Your task to perform on an android device: change text size in settings app Image 0: 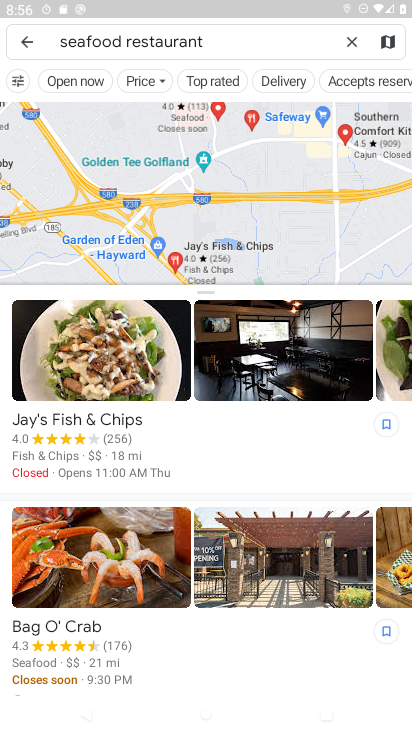
Step 0: click (31, 38)
Your task to perform on an android device: change text size in settings app Image 1: 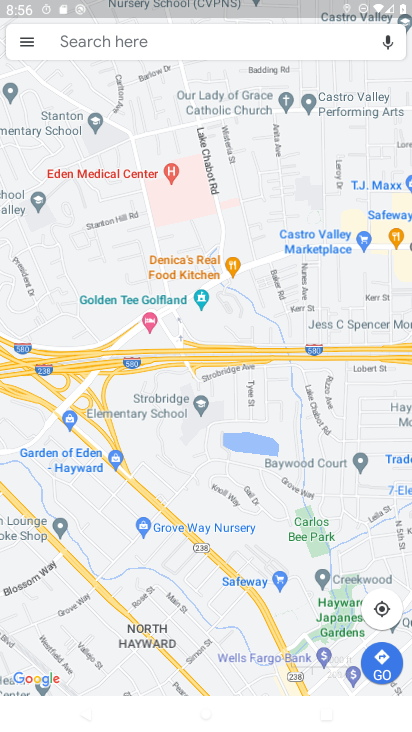
Step 1: press home button
Your task to perform on an android device: change text size in settings app Image 2: 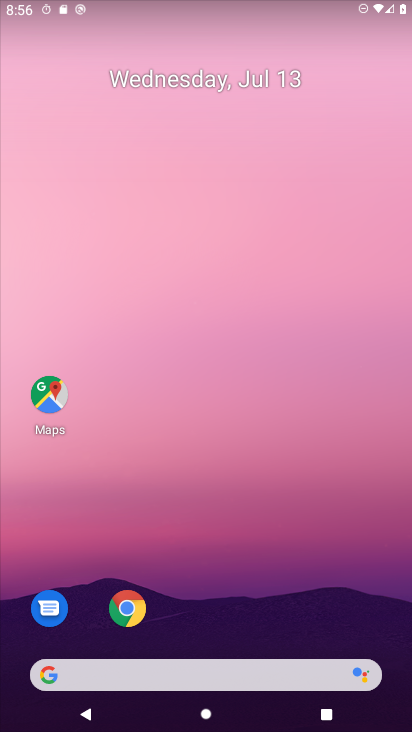
Step 2: press back button
Your task to perform on an android device: change text size in settings app Image 3: 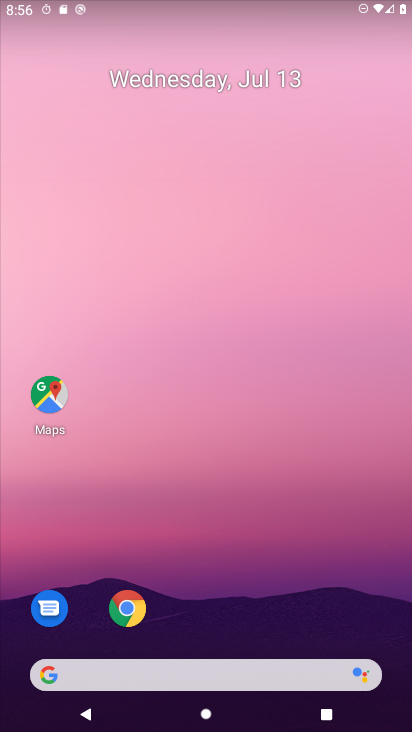
Step 3: drag from (199, 535) to (167, 378)
Your task to perform on an android device: change text size in settings app Image 4: 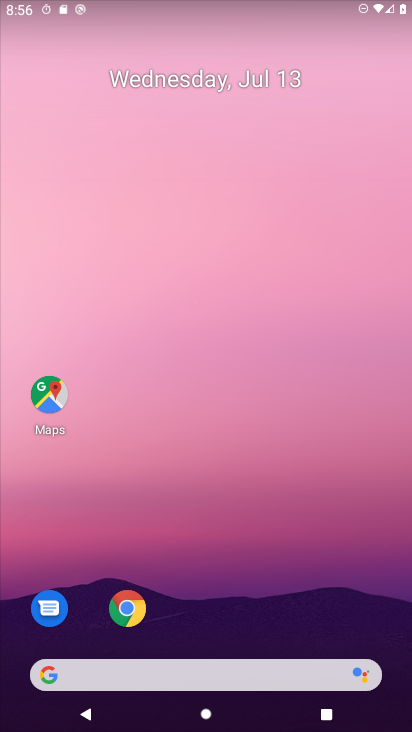
Step 4: drag from (247, 646) to (137, 217)
Your task to perform on an android device: change text size in settings app Image 5: 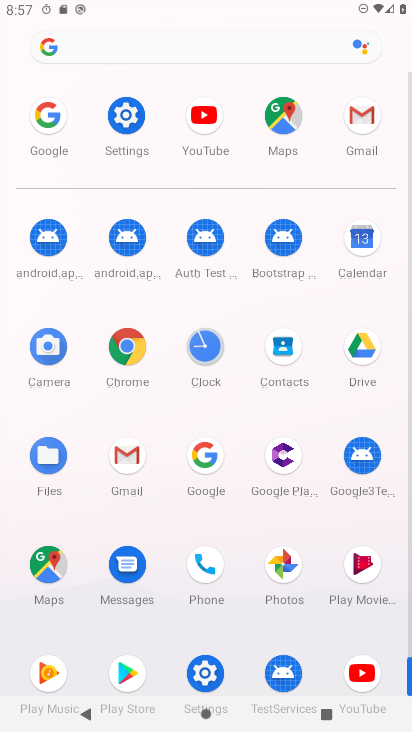
Step 5: click (212, 674)
Your task to perform on an android device: change text size in settings app Image 6: 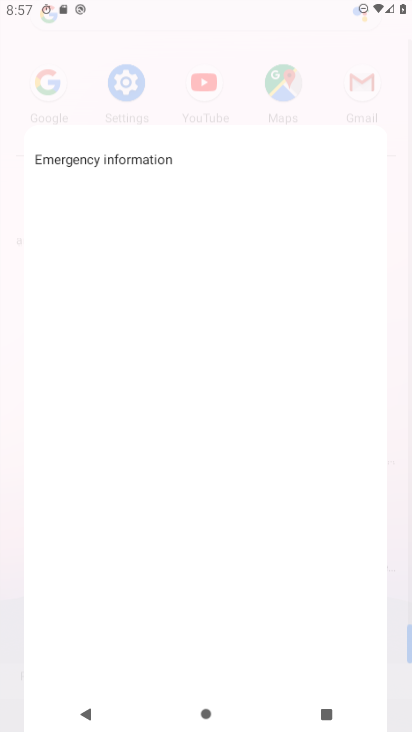
Step 6: click (212, 673)
Your task to perform on an android device: change text size in settings app Image 7: 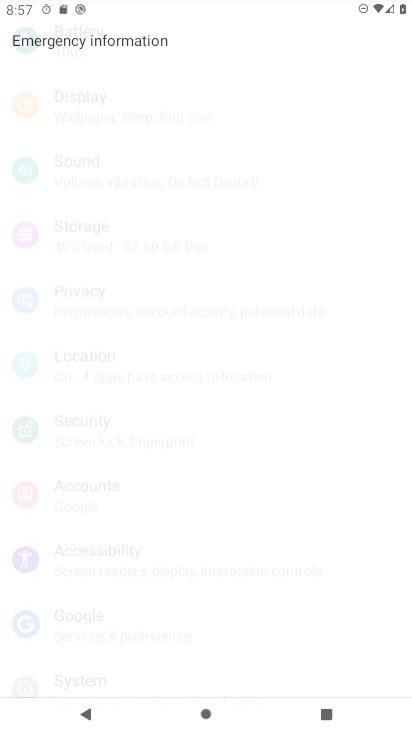
Step 7: click (212, 673)
Your task to perform on an android device: change text size in settings app Image 8: 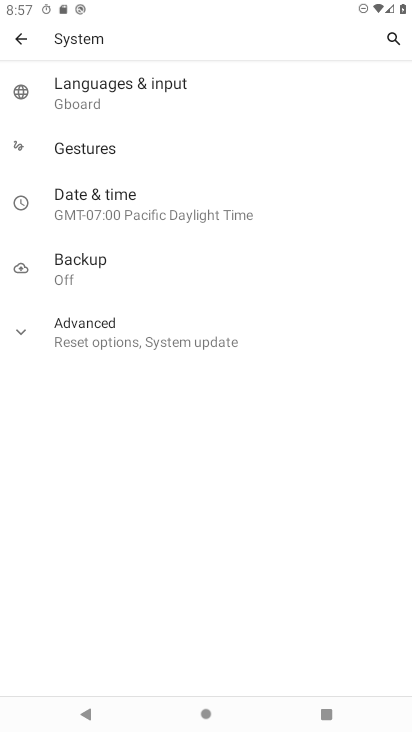
Step 8: click (18, 31)
Your task to perform on an android device: change text size in settings app Image 9: 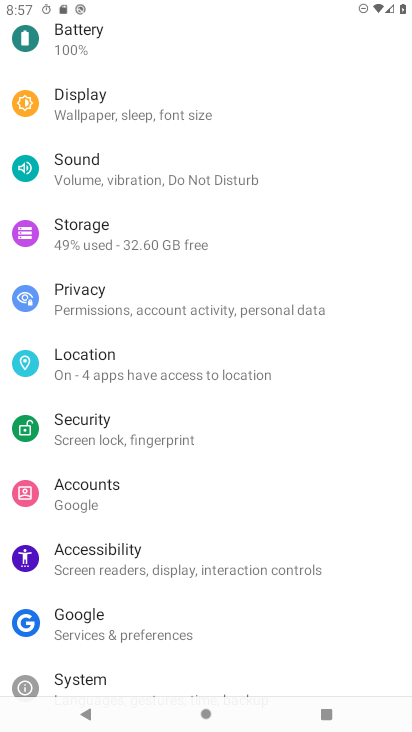
Step 9: click (79, 102)
Your task to perform on an android device: change text size in settings app Image 10: 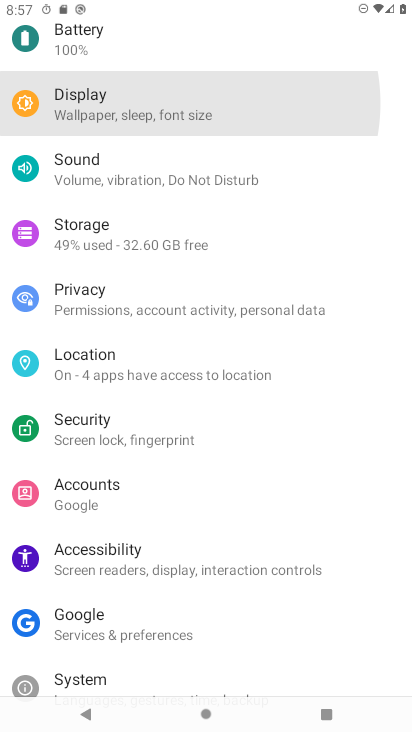
Step 10: click (82, 105)
Your task to perform on an android device: change text size in settings app Image 11: 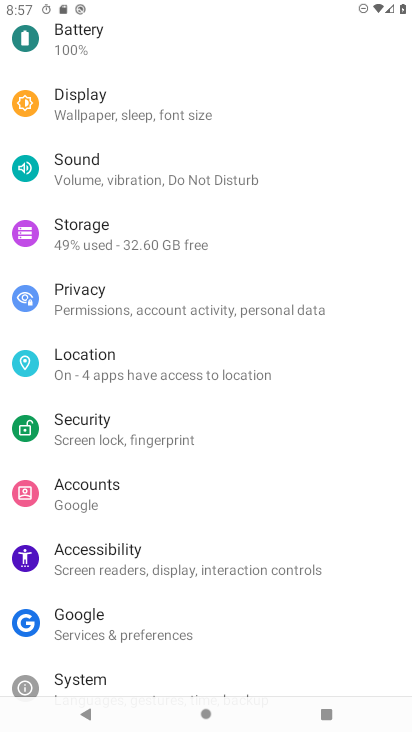
Step 11: click (82, 105)
Your task to perform on an android device: change text size in settings app Image 12: 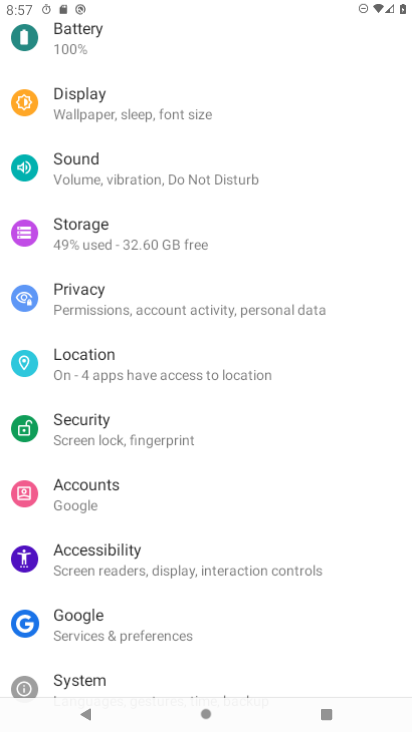
Step 12: click (82, 105)
Your task to perform on an android device: change text size in settings app Image 13: 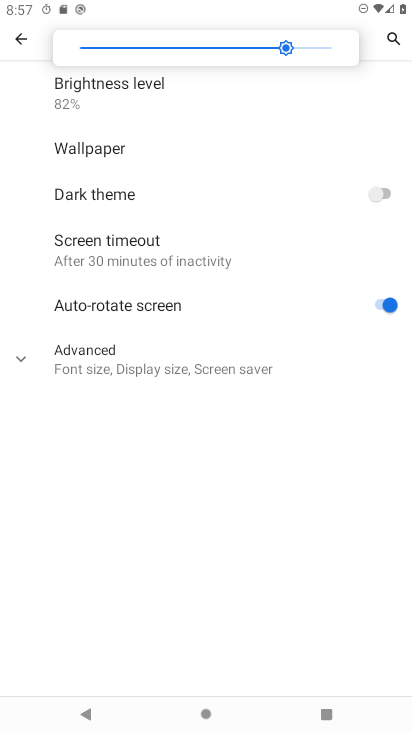
Step 13: click (277, 137)
Your task to perform on an android device: change text size in settings app Image 14: 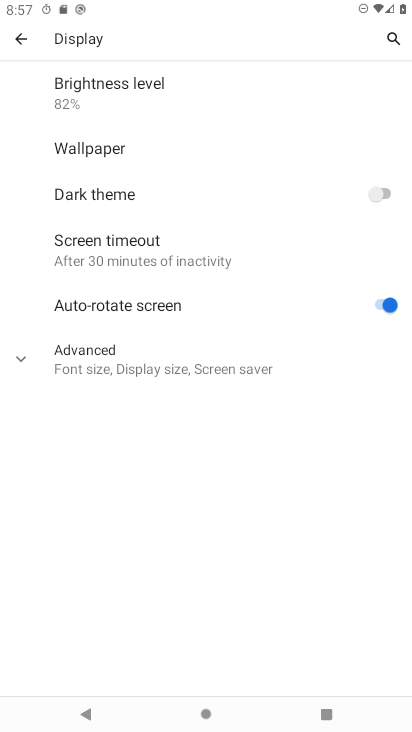
Step 14: click (117, 362)
Your task to perform on an android device: change text size in settings app Image 15: 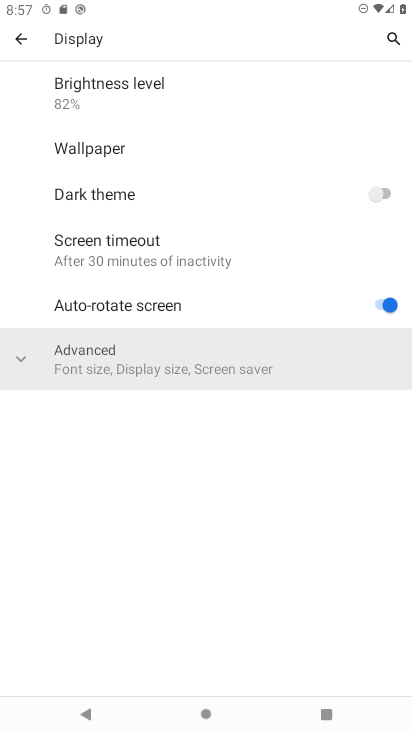
Step 15: click (115, 362)
Your task to perform on an android device: change text size in settings app Image 16: 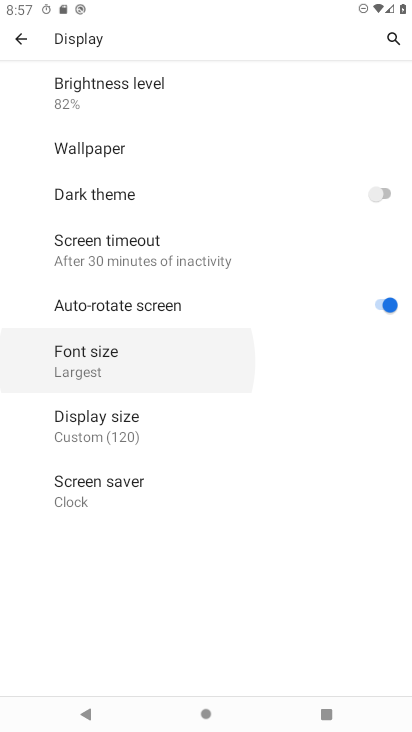
Step 16: click (115, 362)
Your task to perform on an android device: change text size in settings app Image 17: 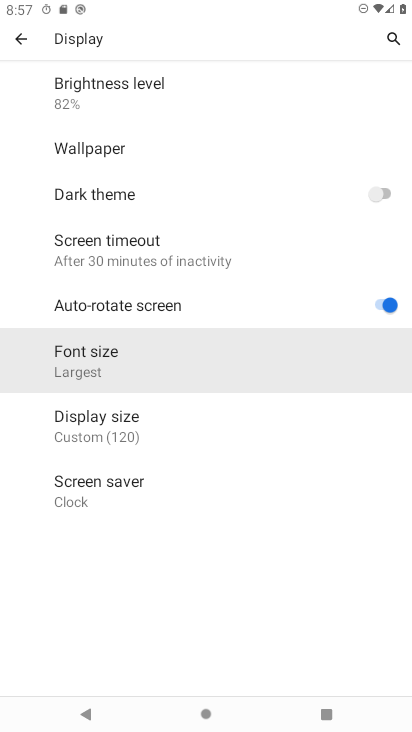
Step 17: click (115, 362)
Your task to perform on an android device: change text size in settings app Image 18: 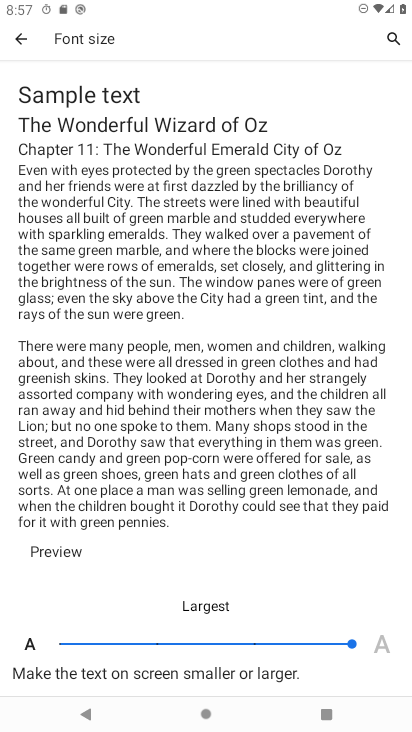
Step 18: task complete